Your task to perform on an android device: turn vacation reply on in the gmail app Image 0: 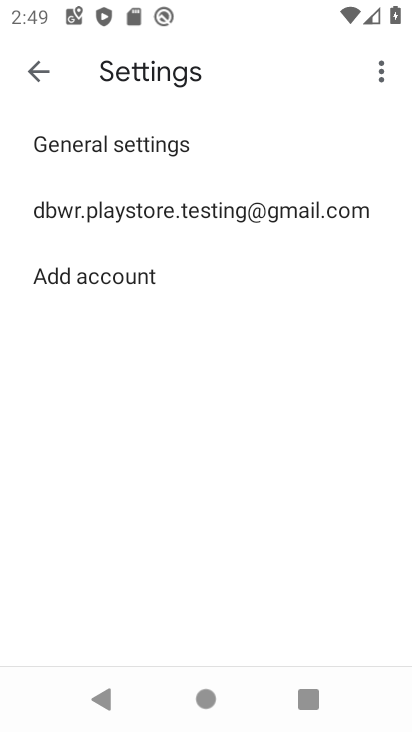
Step 0: click (168, 207)
Your task to perform on an android device: turn vacation reply on in the gmail app Image 1: 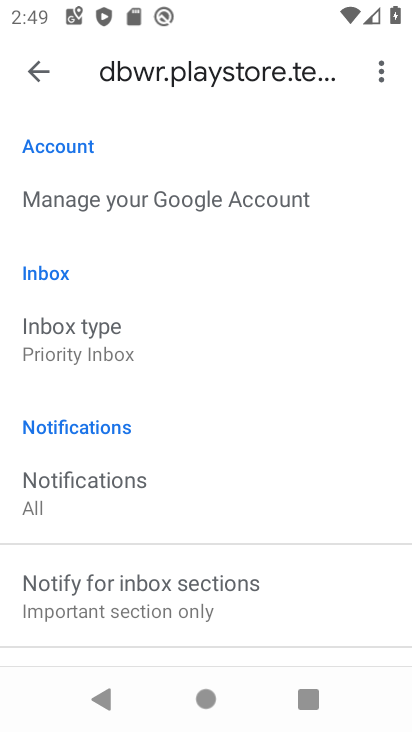
Step 1: drag from (218, 644) to (216, 347)
Your task to perform on an android device: turn vacation reply on in the gmail app Image 2: 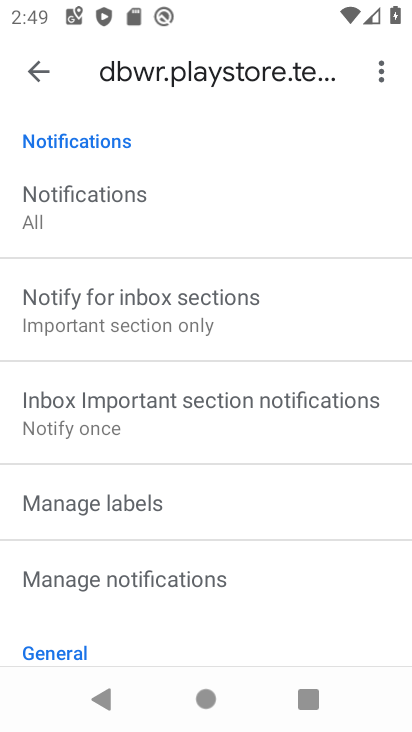
Step 2: drag from (128, 644) to (169, 272)
Your task to perform on an android device: turn vacation reply on in the gmail app Image 3: 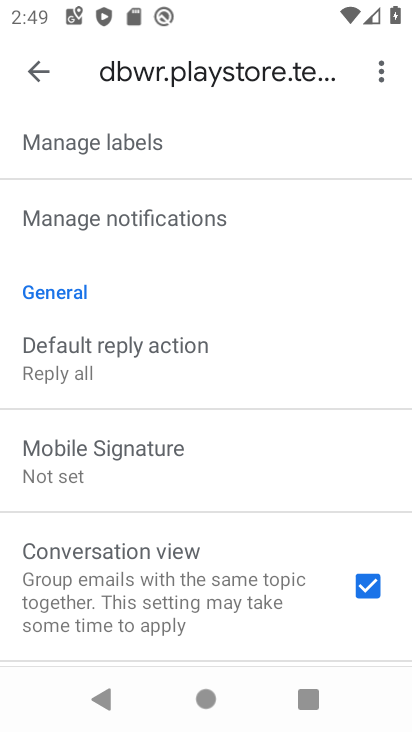
Step 3: drag from (156, 606) to (159, 171)
Your task to perform on an android device: turn vacation reply on in the gmail app Image 4: 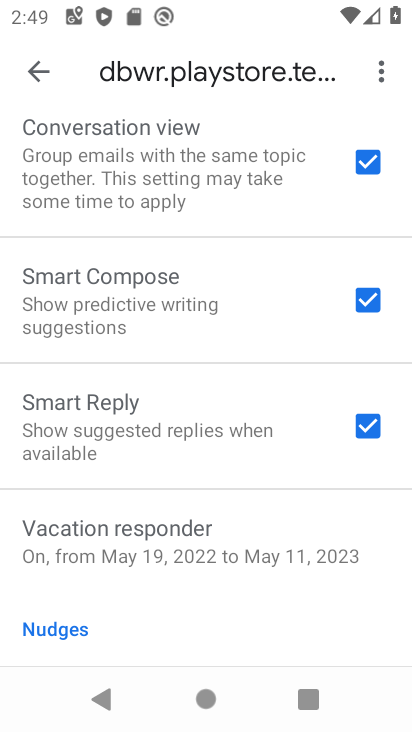
Step 4: click (133, 530)
Your task to perform on an android device: turn vacation reply on in the gmail app Image 5: 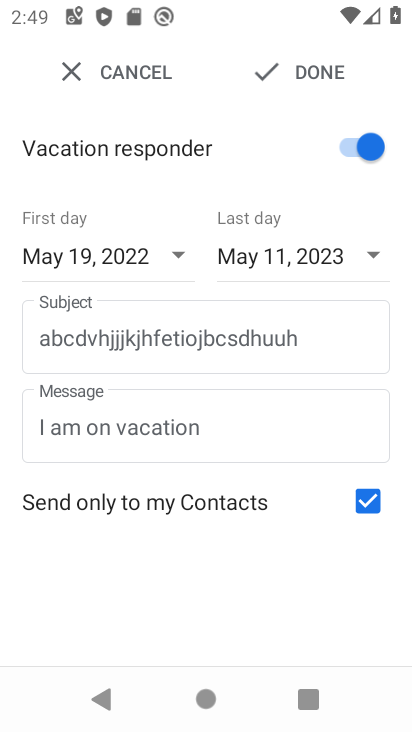
Step 5: task complete